Your task to perform on an android device: change your default location settings in chrome Image 0: 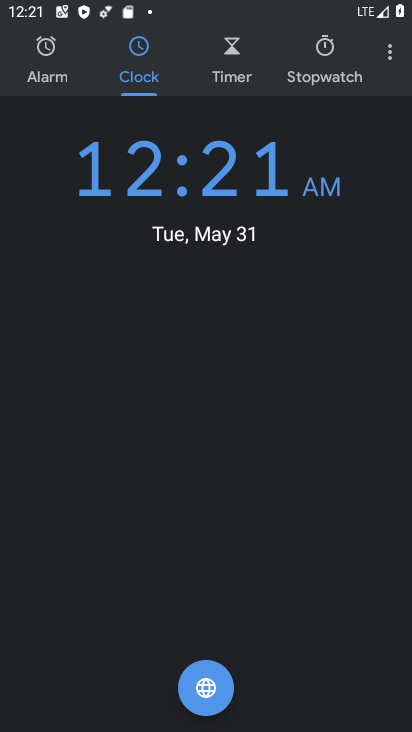
Step 0: press home button
Your task to perform on an android device: change your default location settings in chrome Image 1: 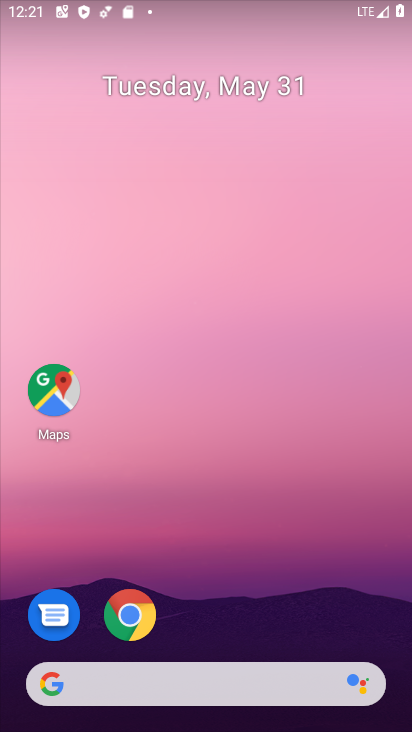
Step 1: click (128, 616)
Your task to perform on an android device: change your default location settings in chrome Image 2: 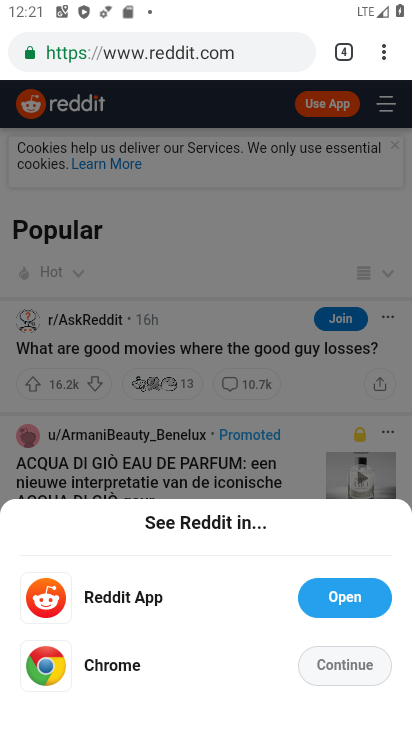
Step 2: click (381, 53)
Your task to perform on an android device: change your default location settings in chrome Image 3: 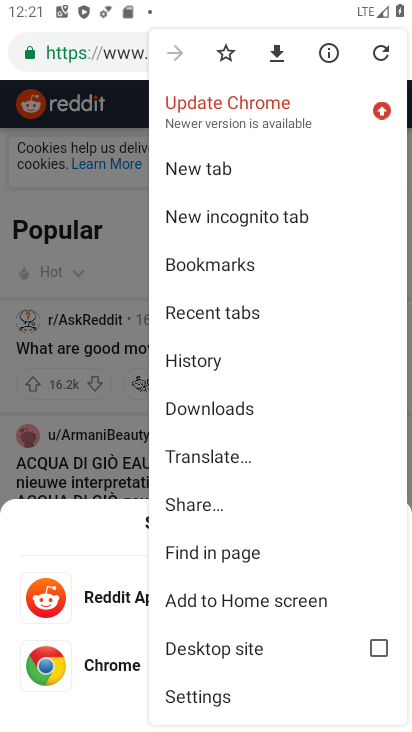
Step 3: click (201, 696)
Your task to perform on an android device: change your default location settings in chrome Image 4: 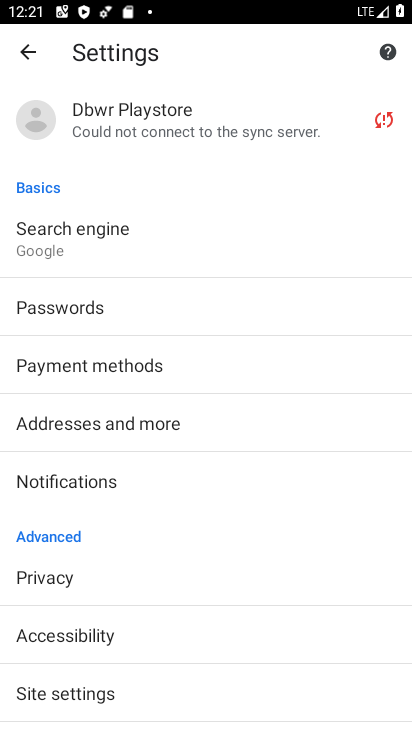
Step 4: drag from (120, 597) to (189, 230)
Your task to perform on an android device: change your default location settings in chrome Image 5: 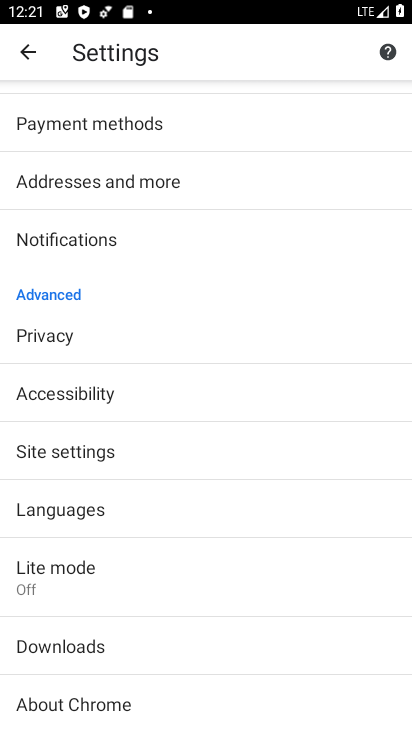
Step 5: click (88, 458)
Your task to perform on an android device: change your default location settings in chrome Image 6: 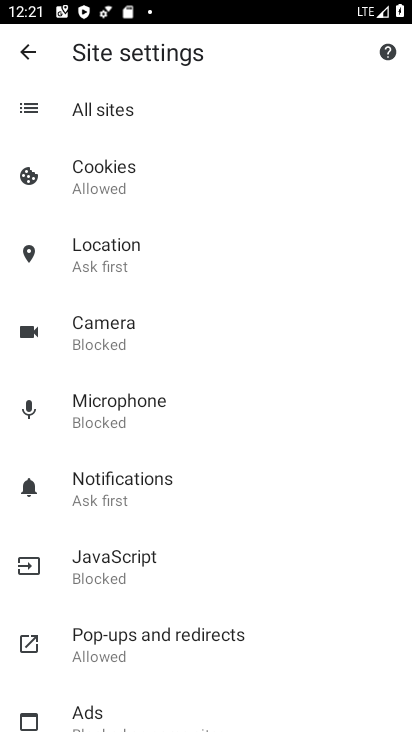
Step 6: click (119, 260)
Your task to perform on an android device: change your default location settings in chrome Image 7: 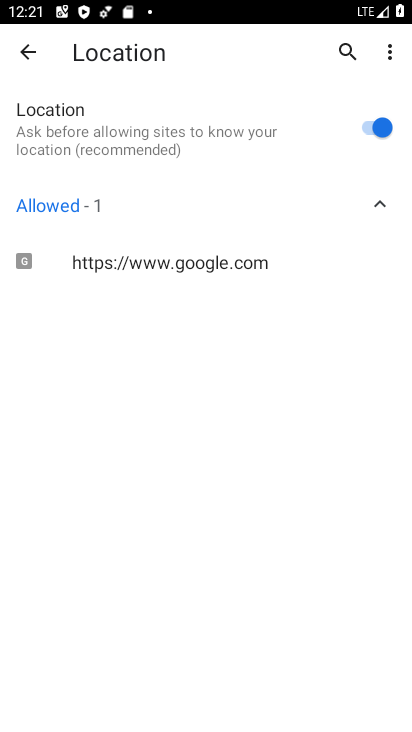
Step 7: click (348, 126)
Your task to perform on an android device: change your default location settings in chrome Image 8: 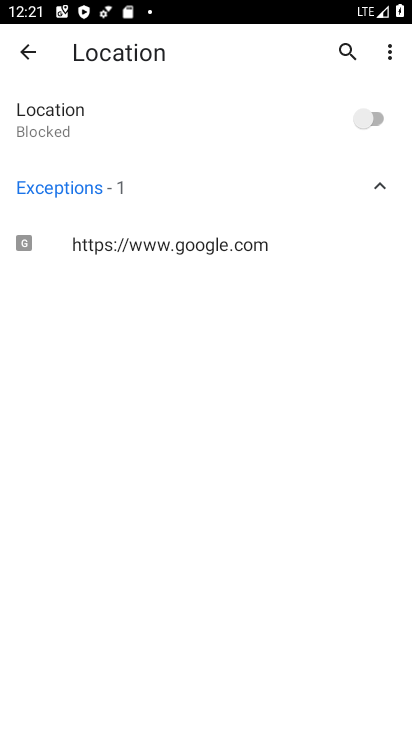
Step 8: task complete